Your task to perform on an android device: Go to battery settings Image 0: 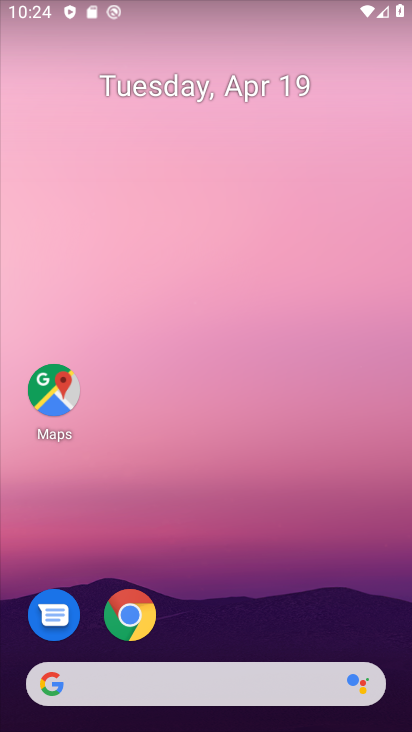
Step 0: drag from (232, 551) to (346, 122)
Your task to perform on an android device: Go to battery settings Image 1: 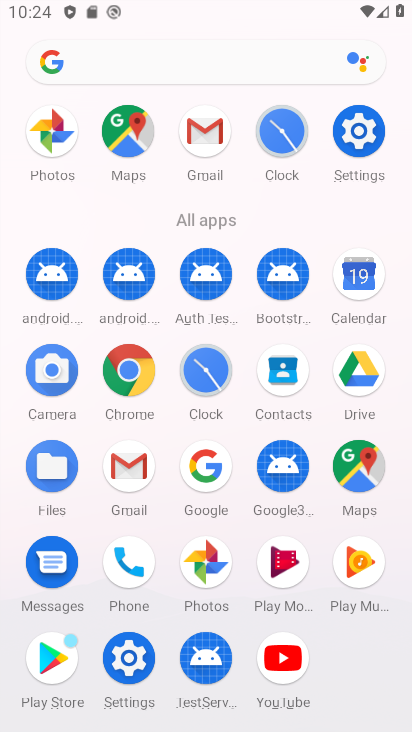
Step 1: click (356, 129)
Your task to perform on an android device: Go to battery settings Image 2: 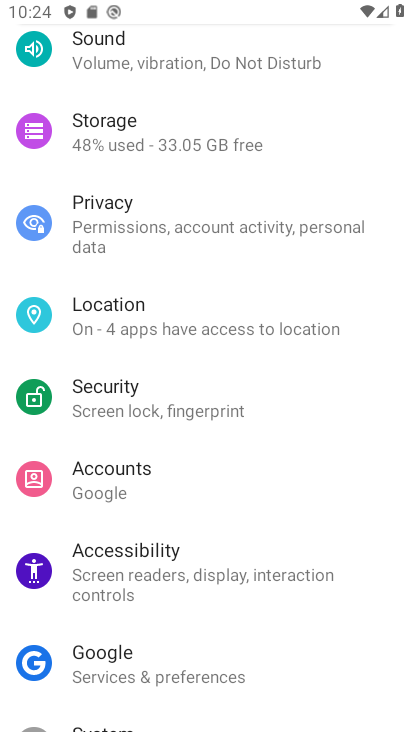
Step 2: drag from (222, 535) to (321, 579)
Your task to perform on an android device: Go to battery settings Image 3: 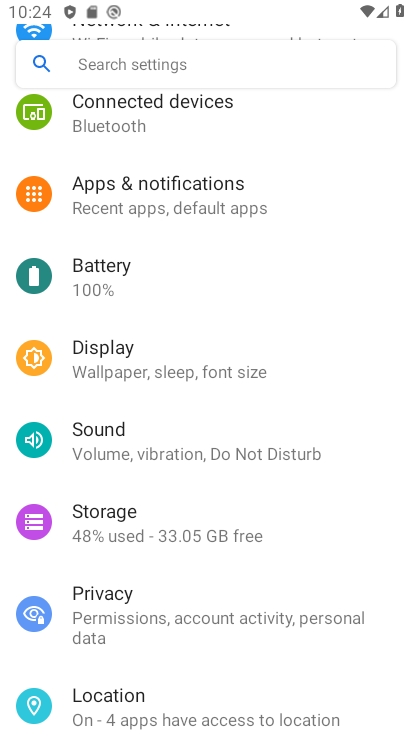
Step 3: click (141, 283)
Your task to perform on an android device: Go to battery settings Image 4: 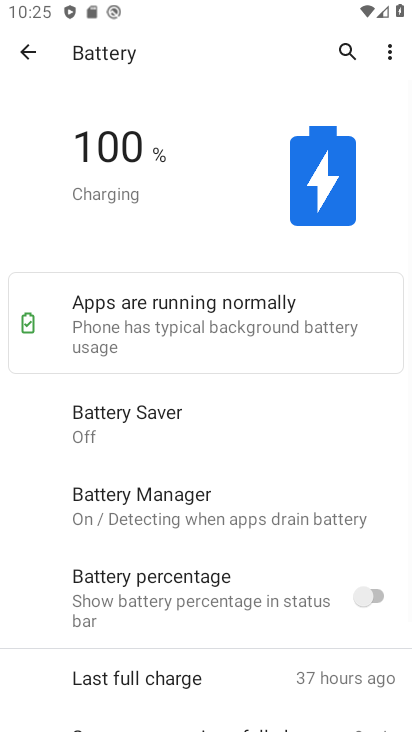
Step 4: task complete